Your task to perform on an android device: check data usage Image 0: 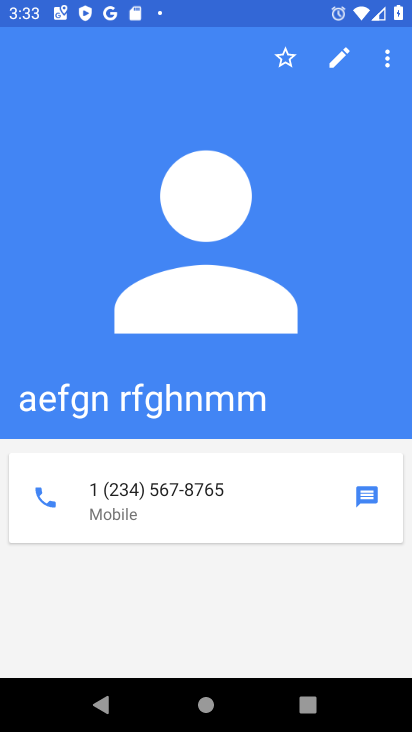
Step 0: press home button
Your task to perform on an android device: check data usage Image 1: 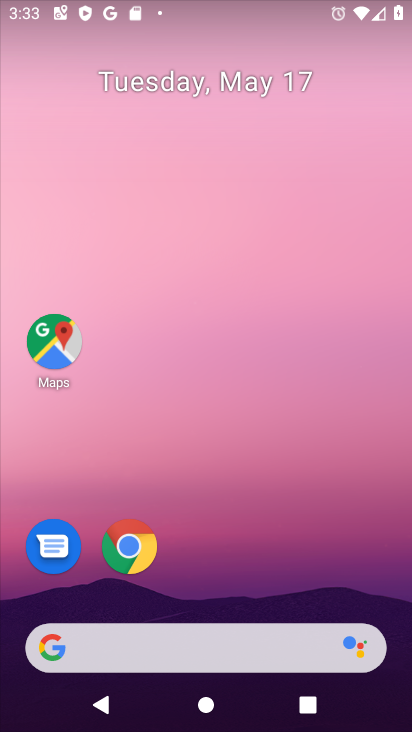
Step 1: drag from (400, 678) to (404, 152)
Your task to perform on an android device: check data usage Image 2: 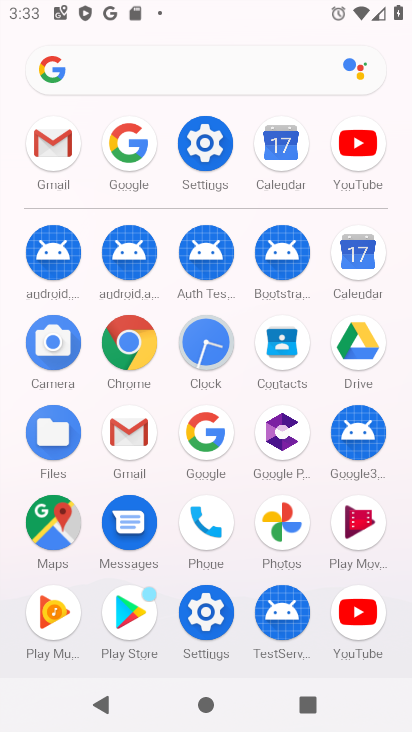
Step 2: click (223, 151)
Your task to perform on an android device: check data usage Image 3: 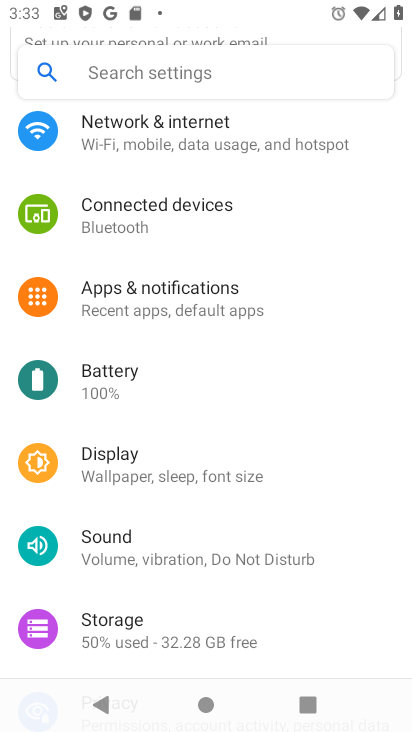
Step 3: click (139, 141)
Your task to perform on an android device: check data usage Image 4: 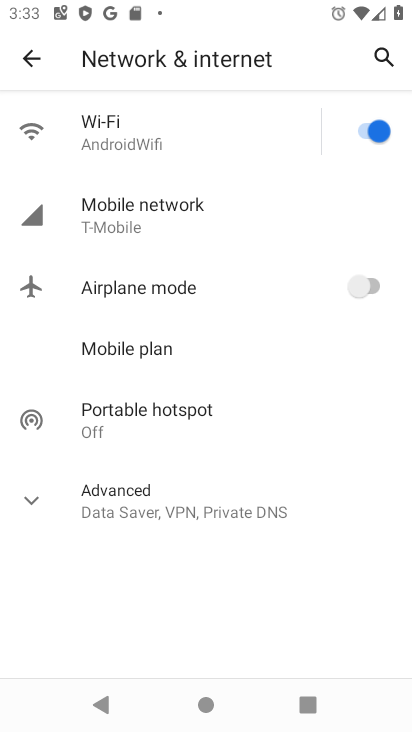
Step 4: click (136, 210)
Your task to perform on an android device: check data usage Image 5: 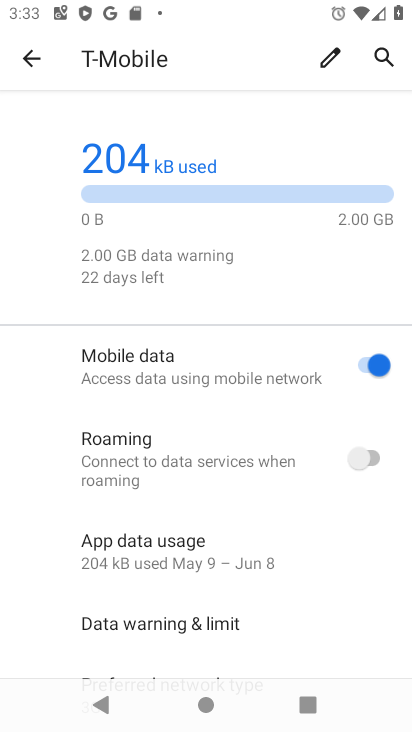
Step 5: task complete